Your task to perform on an android device: check data usage Image 0: 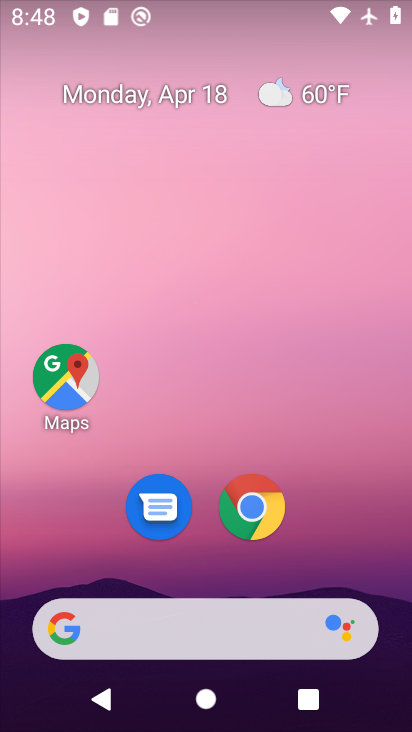
Step 0: drag from (322, 551) to (318, 62)
Your task to perform on an android device: check data usage Image 1: 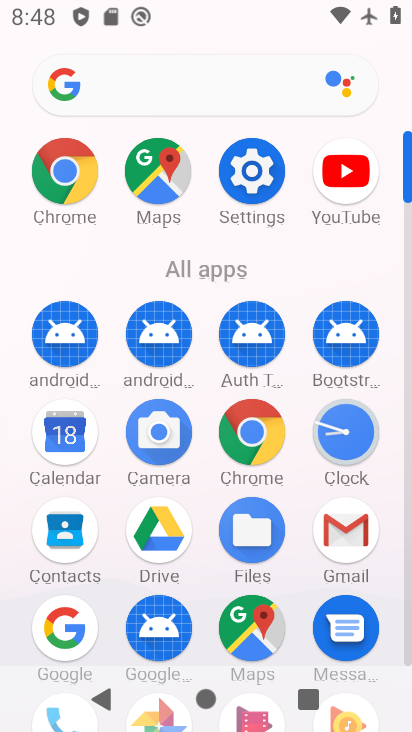
Step 1: click (252, 173)
Your task to perform on an android device: check data usage Image 2: 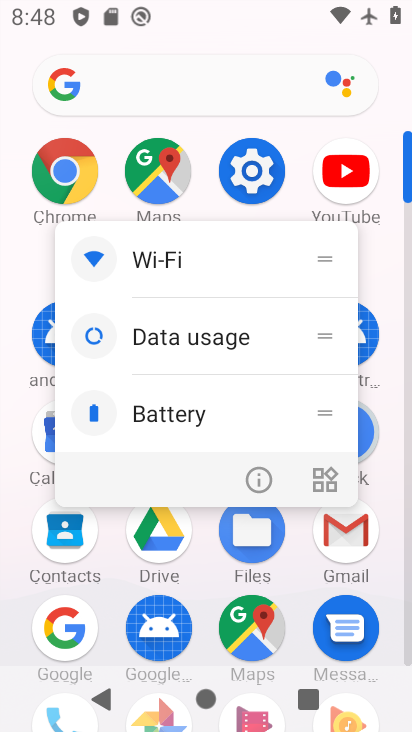
Step 2: click (263, 171)
Your task to perform on an android device: check data usage Image 3: 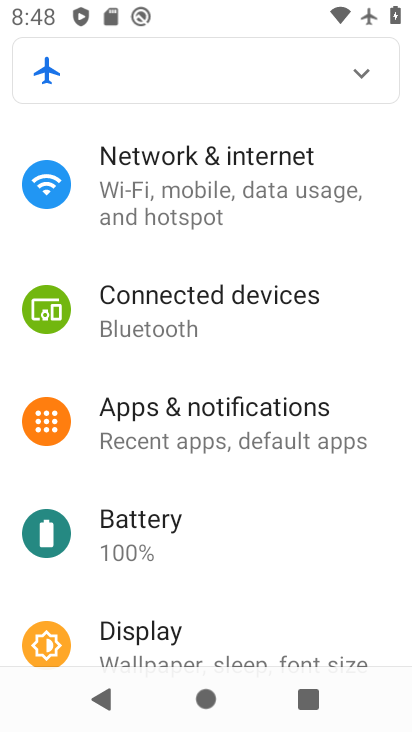
Step 3: click (288, 199)
Your task to perform on an android device: check data usage Image 4: 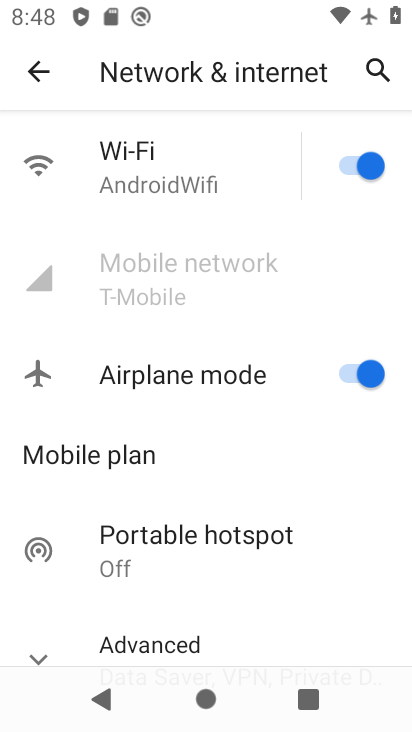
Step 4: drag from (240, 603) to (265, 223)
Your task to perform on an android device: check data usage Image 5: 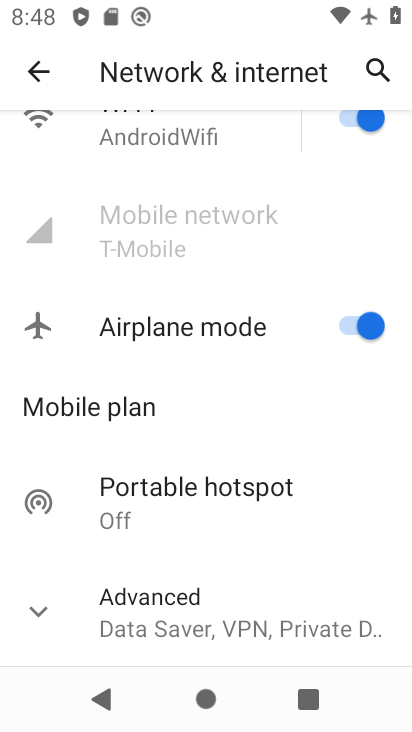
Step 5: drag from (229, 624) to (266, 353)
Your task to perform on an android device: check data usage Image 6: 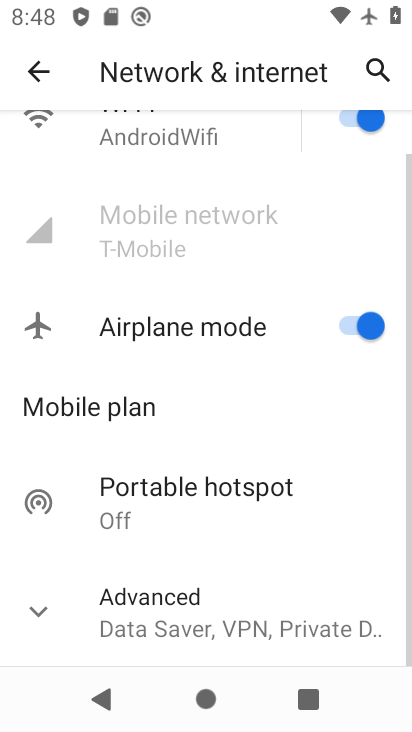
Step 6: click (381, 69)
Your task to perform on an android device: check data usage Image 7: 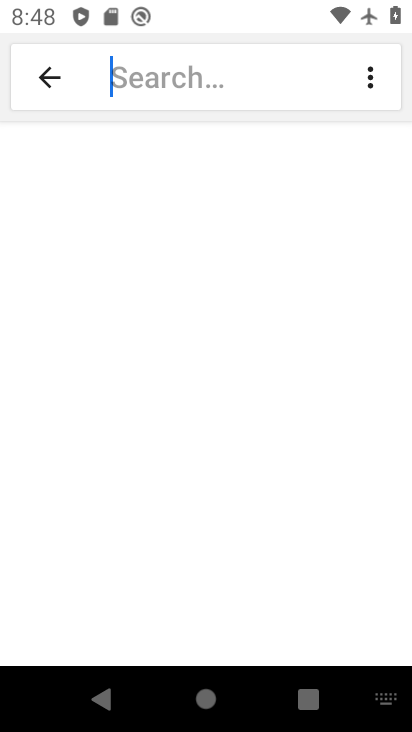
Step 7: click (232, 76)
Your task to perform on an android device: check data usage Image 8: 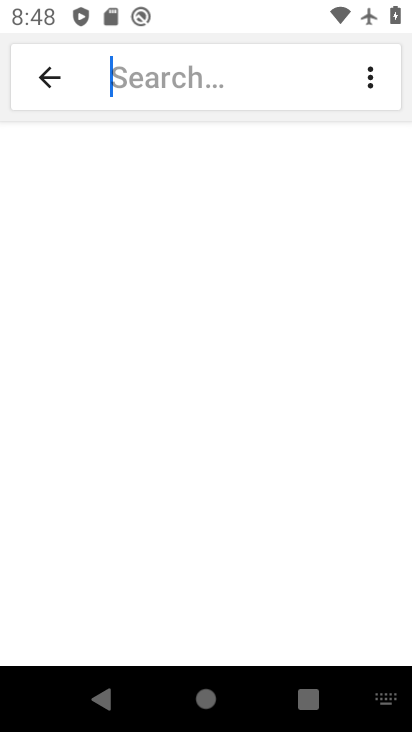
Step 8: type "data usage"
Your task to perform on an android device: check data usage Image 9: 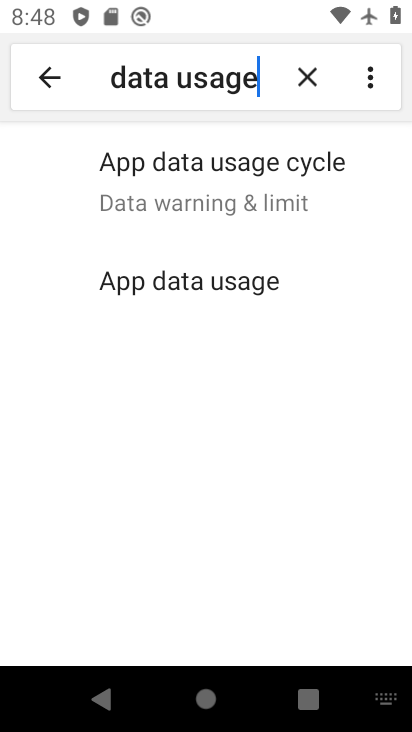
Step 9: click (263, 291)
Your task to perform on an android device: check data usage Image 10: 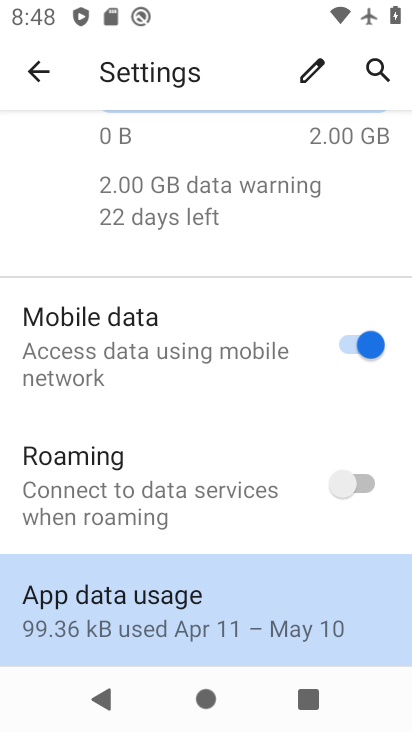
Step 10: click (201, 613)
Your task to perform on an android device: check data usage Image 11: 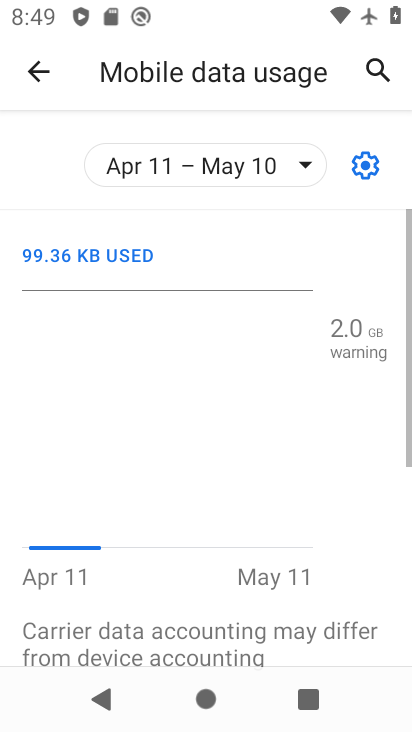
Step 11: task complete